Your task to perform on an android device: allow cookies in the chrome app Image 0: 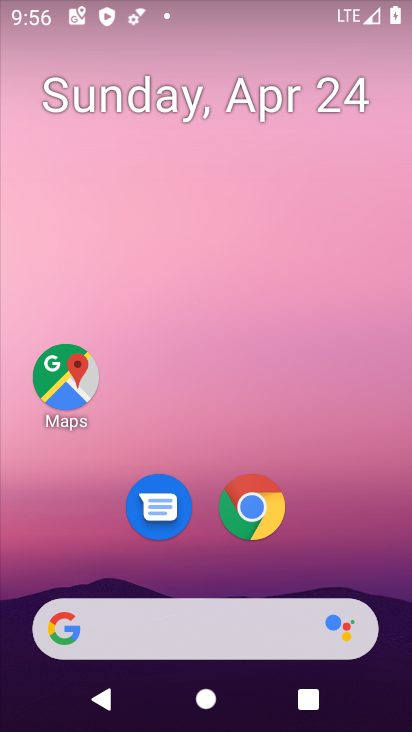
Step 0: click (255, 499)
Your task to perform on an android device: allow cookies in the chrome app Image 1: 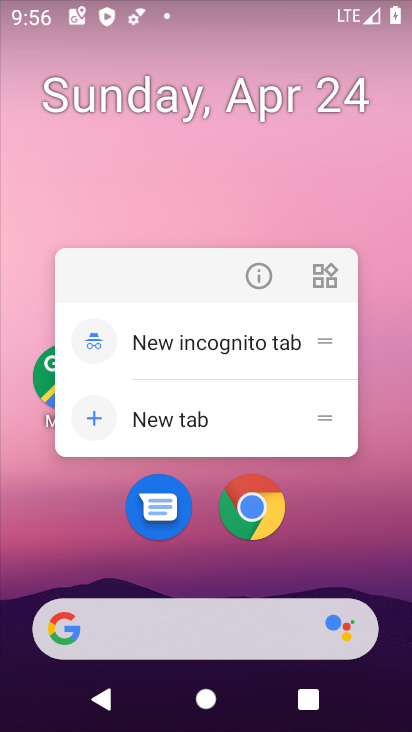
Step 1: click (253, 278)
Your task to perform on an android device: allow cookies in the chrome app Image 2: 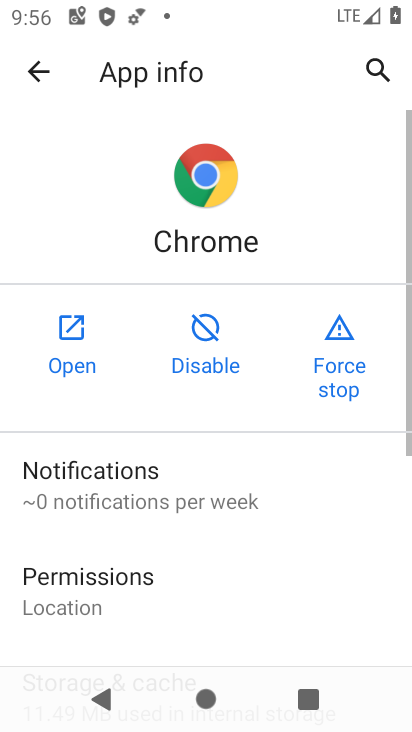
Step 2: click (53, 354)
Your task to perform on an android device: allow cookies in the chrome app Image 3: 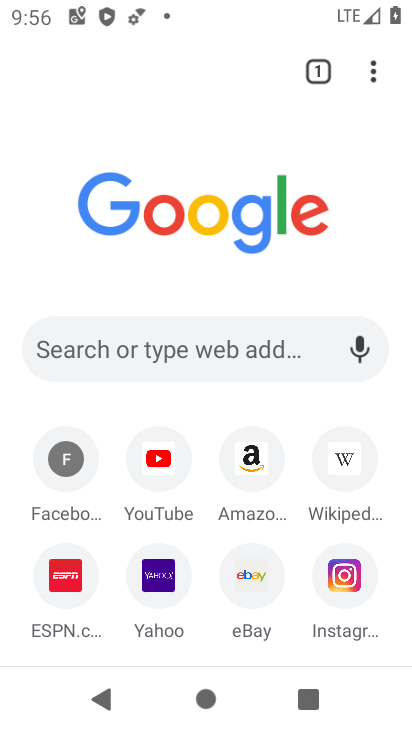
Step 3: click (371, 70)
Your task to perform on an android device: allow cookies in the chrome app Image 4: 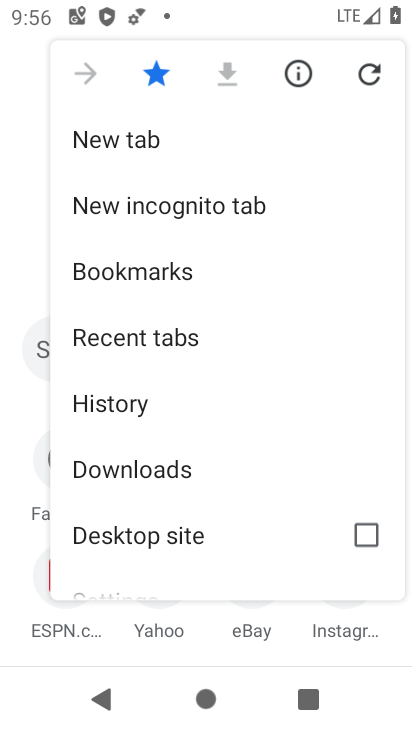
Step 4: drag from (180, 365) to (212, 166)
Your task to perform on an android device: allow cookies in the chrome app Image 5: 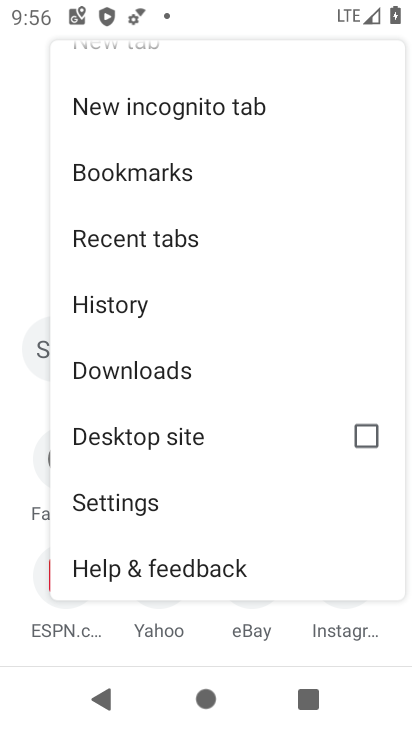
Step 5: click (111, 492)
Your task to perform on an android device: allow cookies in the chrome app Image 6: 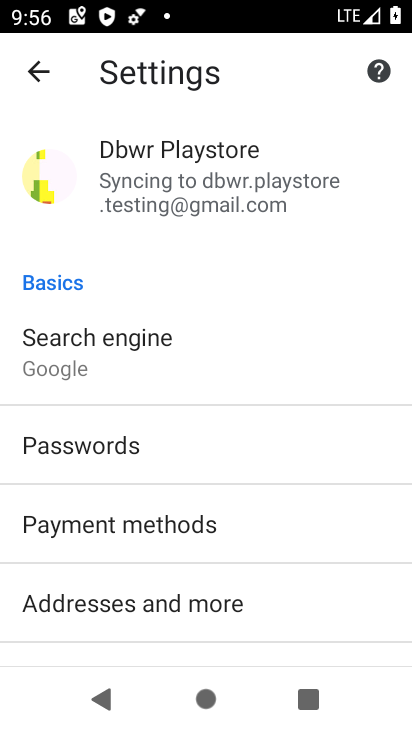
Step 6: drag from (173, 405) to (237, 87)
Your task to perform on an android device: allow cookies in the chrome app Image 7: 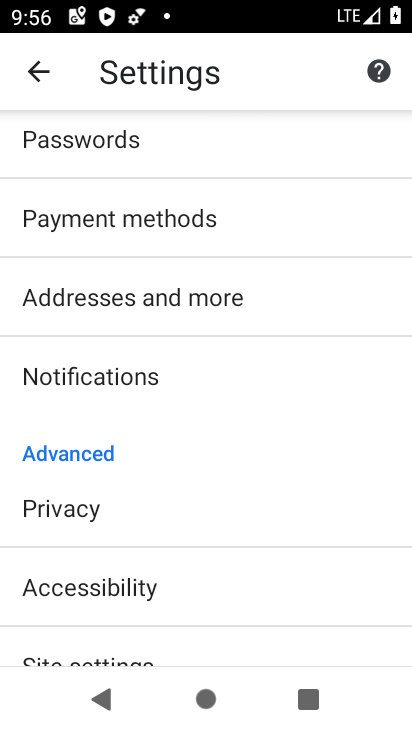
Step 7: drag from (114, 568) to (144, 272)
Your task to perform on an android device: allow cookies in the chrome app Image 8: 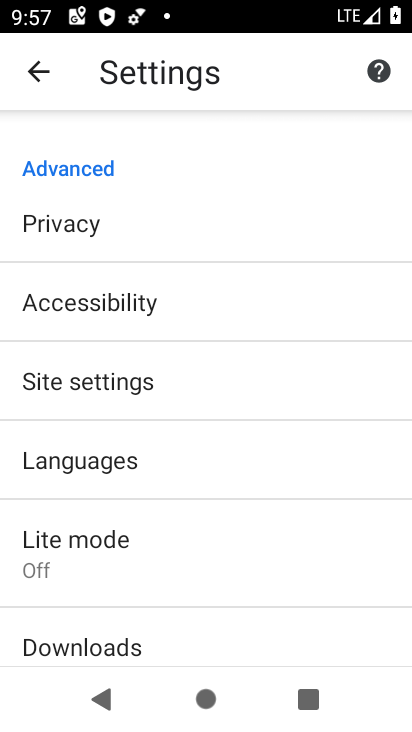
Step 8: click (79, 394)
Your task to perform on an android device: allow cookies in the chrome app Image 9: 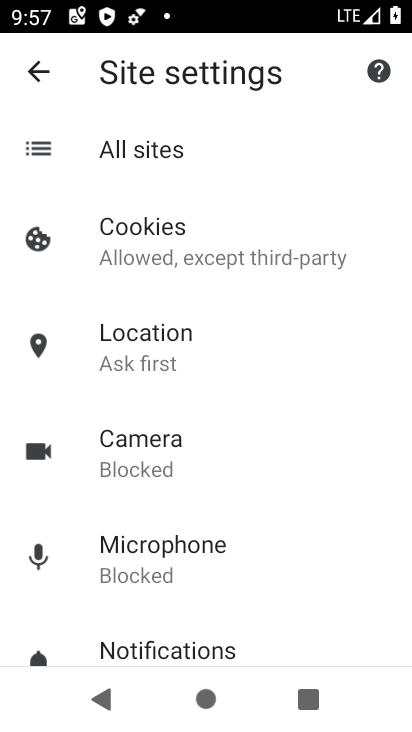
Step 9: click (172, 257)
Your task to perform on an android device: allow cookies in the chrome app Image 10: 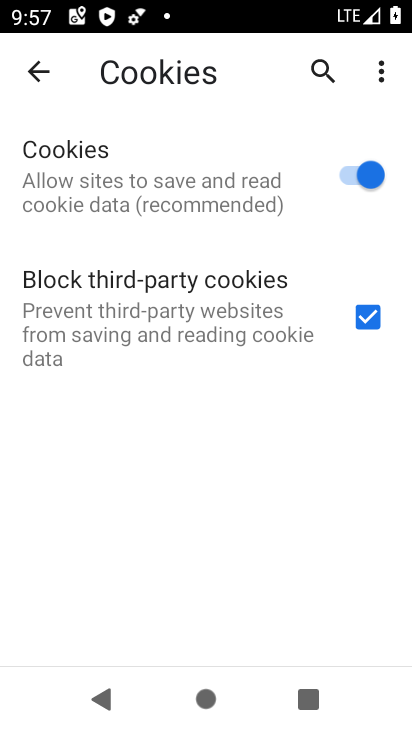
Step 10: task complete